Your task to perform on an android device: install app "ZOOM Cloud Meetings" Image 0: 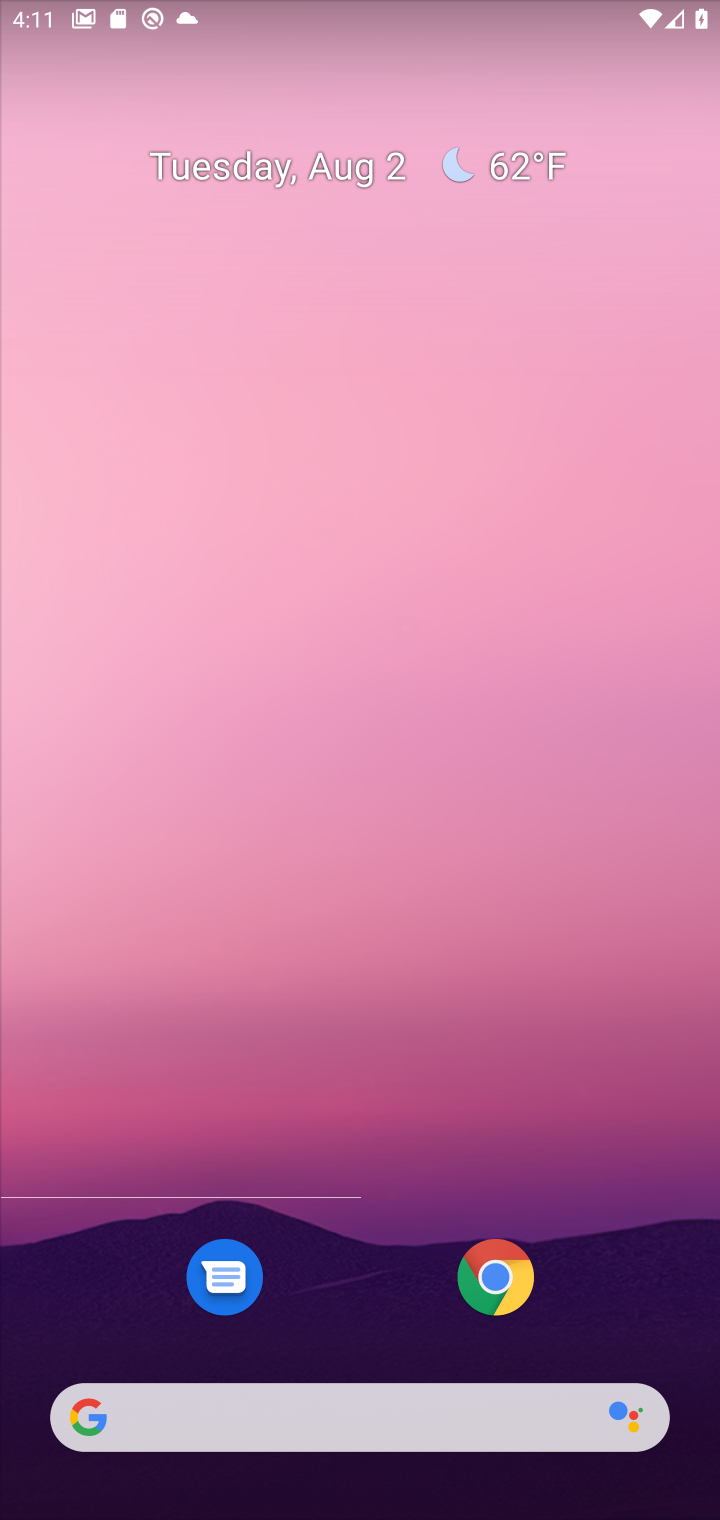
Step 0: press home button
Your task to perform on an android device: install app "ZOOM Cloud Meetings" Image 1: 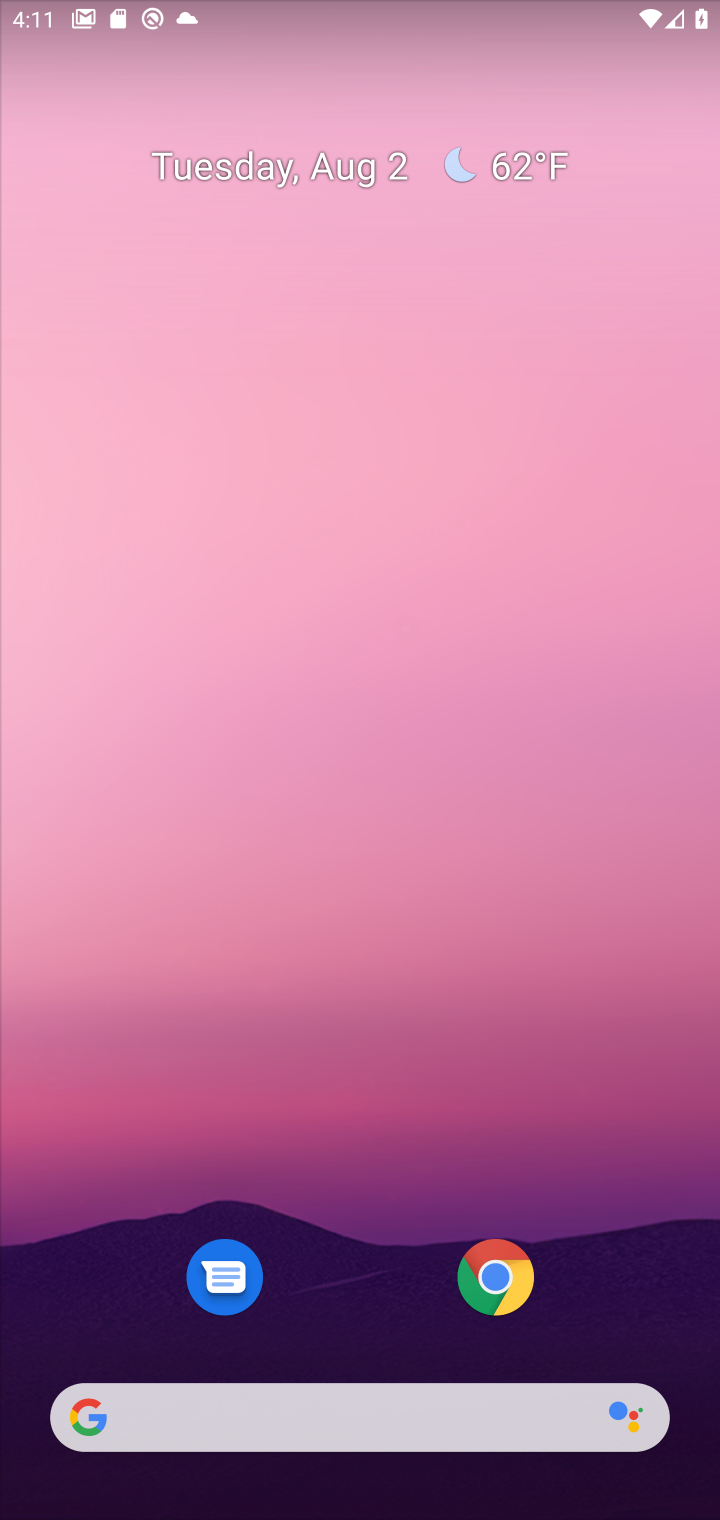
Step 1: drag from (375, 883) to (419, 209)
Your task to perform on an android device: install app "ZOOM Cloud Meetings" Image 2: 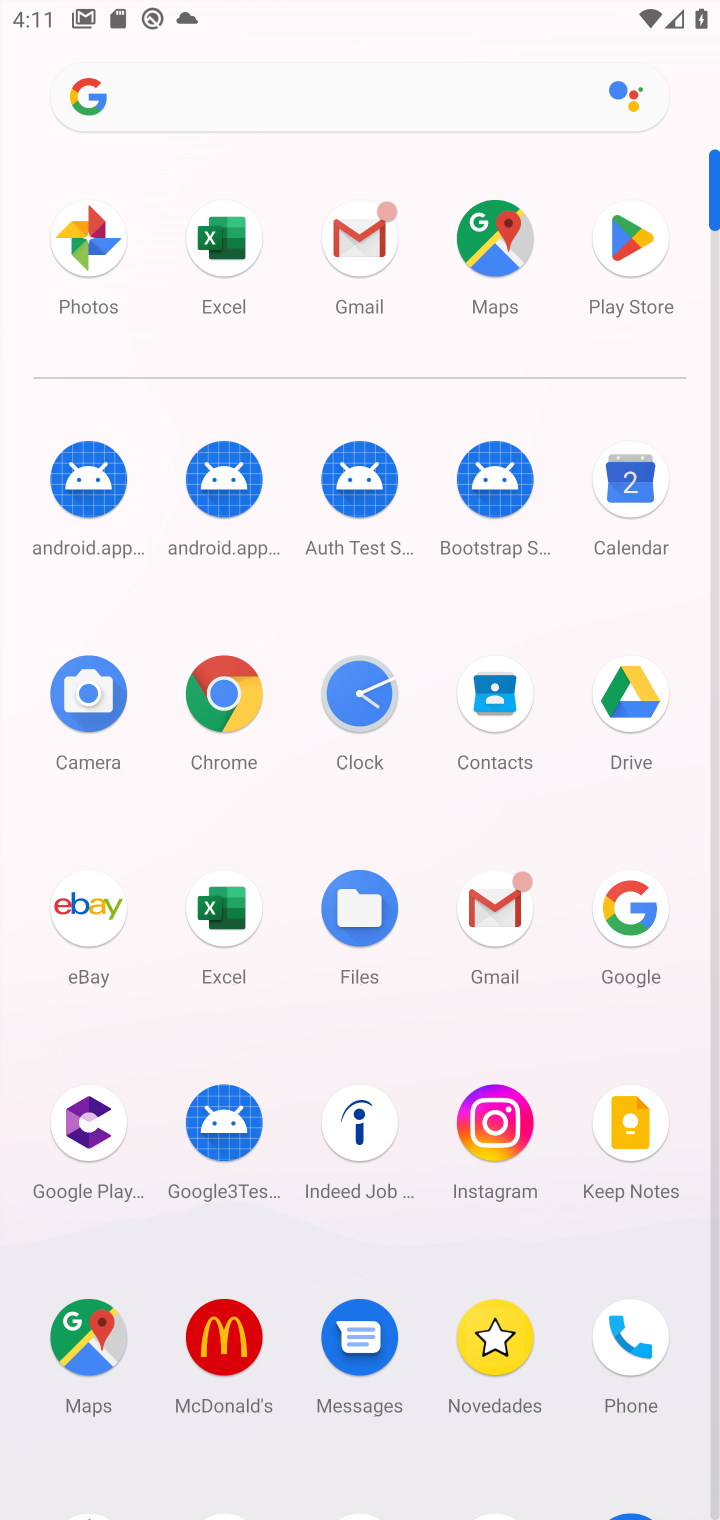
Step 2: drag from (560, 1004) to (573, 420)
Your task to perform on an android device: install app "ZOOM Cloud Meetings" Image 3: 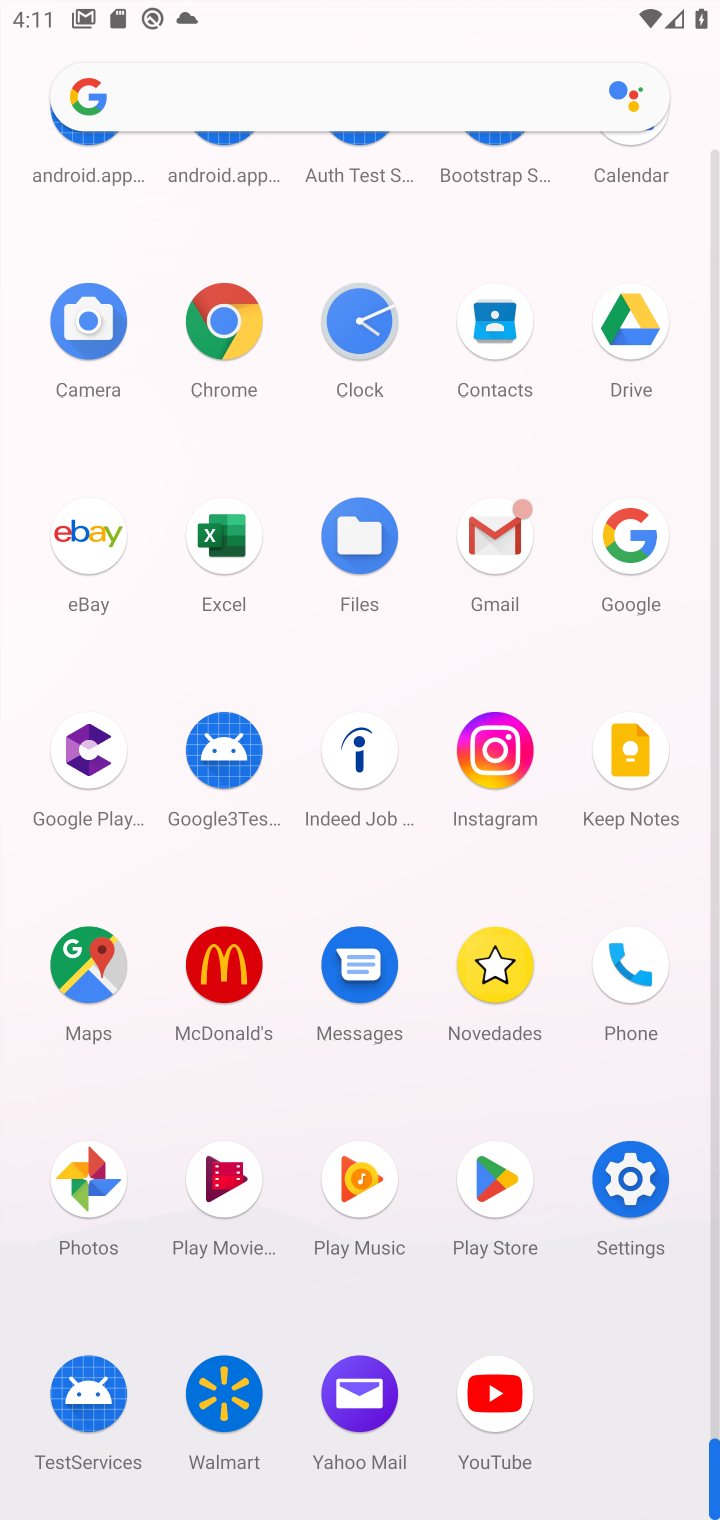
Step 3: click (496, 1192)
Your task to perform on an android device: install app "ZOOM Cloud Meetings" Image 4: 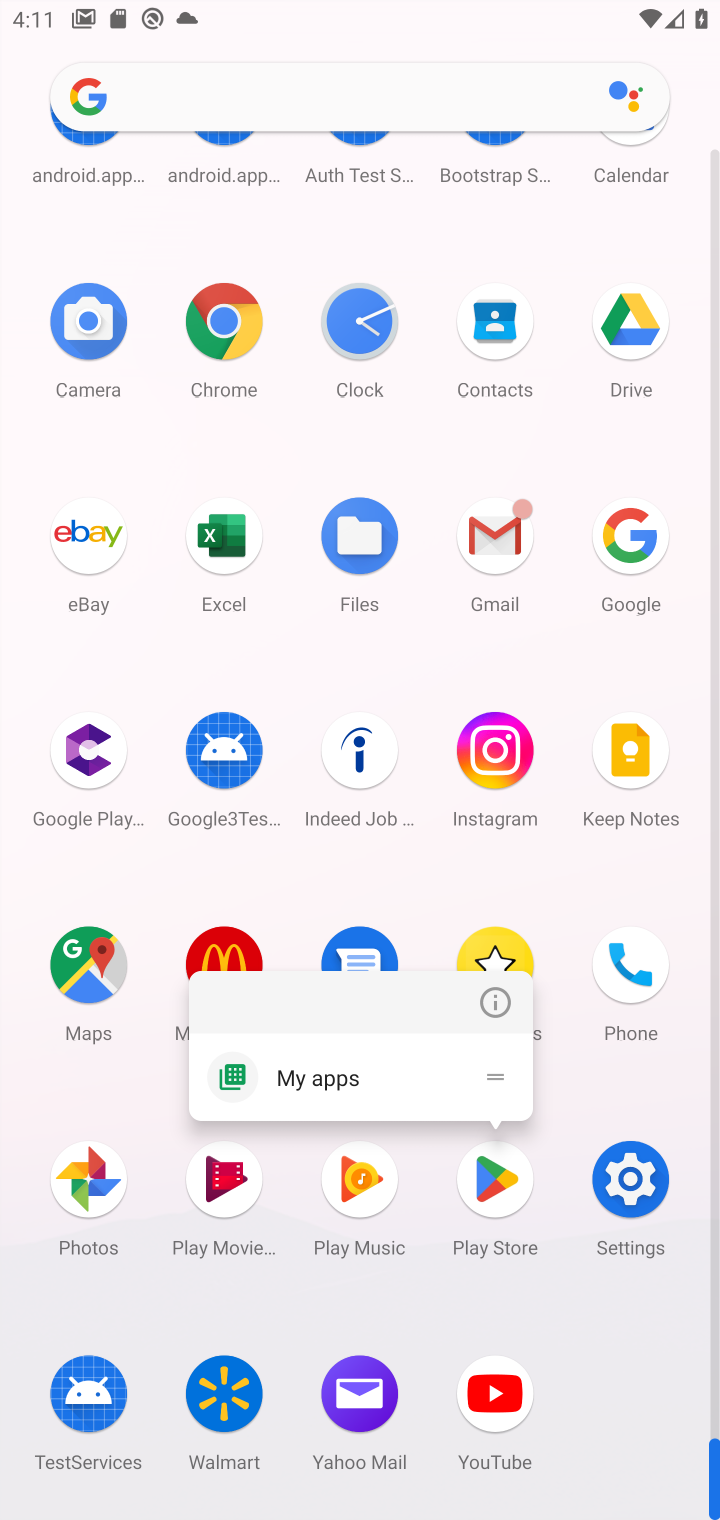
Step 4: click (483, 1176)
Your task to perform on an android device: install app "ZOOM Cloud Meetings" Image 5: 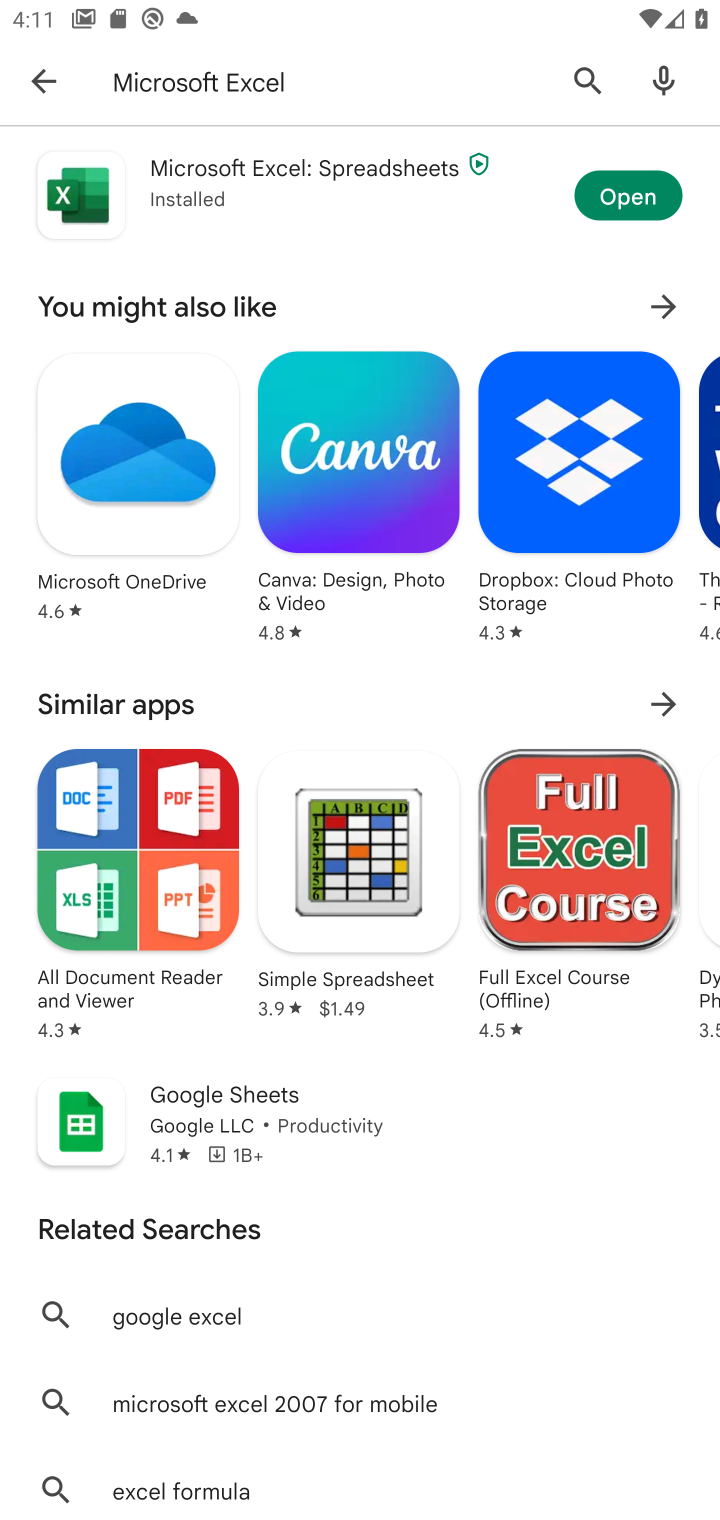
Step 5: click (403, 93)
Your task to perform on an android device: install app "ZOOM Cloud Meetings" Image 6: 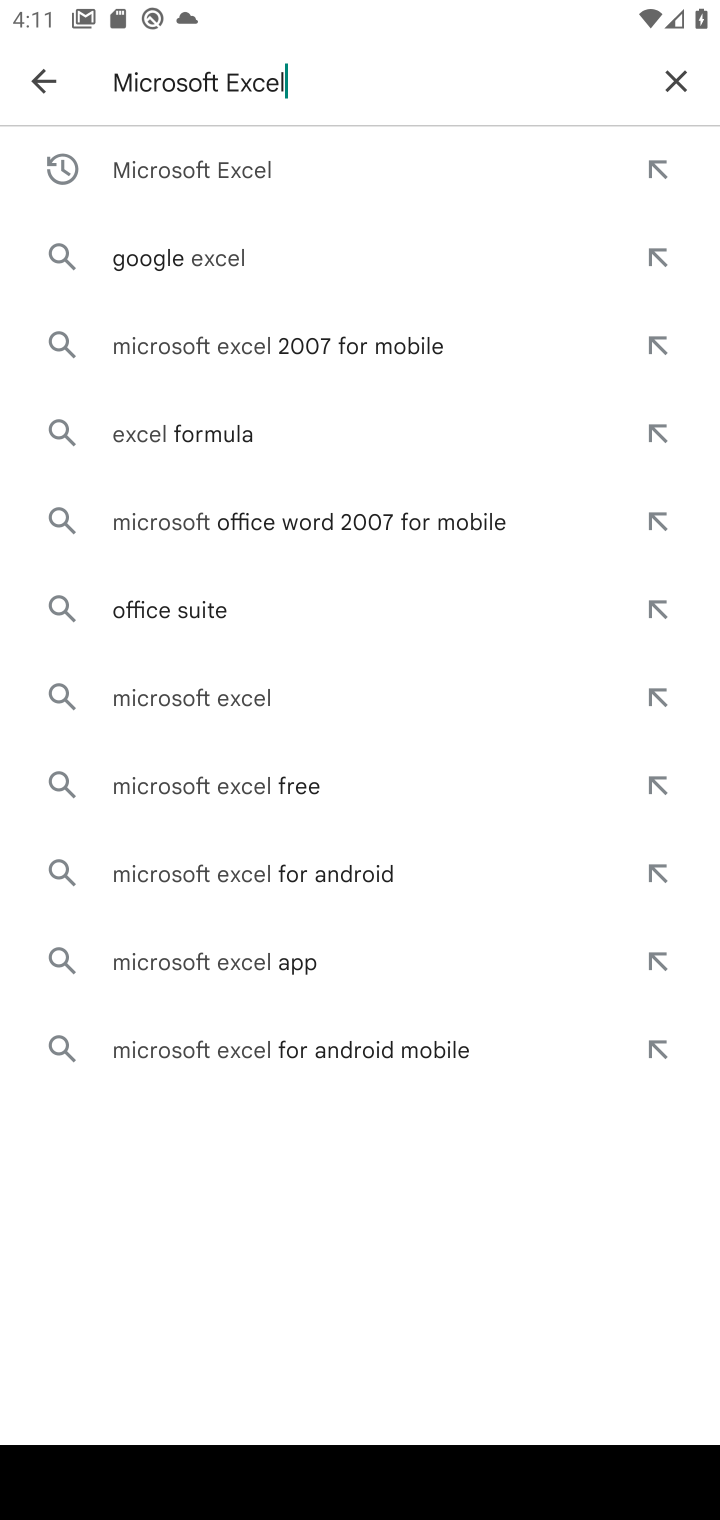
Step 6: click (669, 81)
Your task to perform on an android device: install app "ZOOM Cloud Meetings" Image 7: 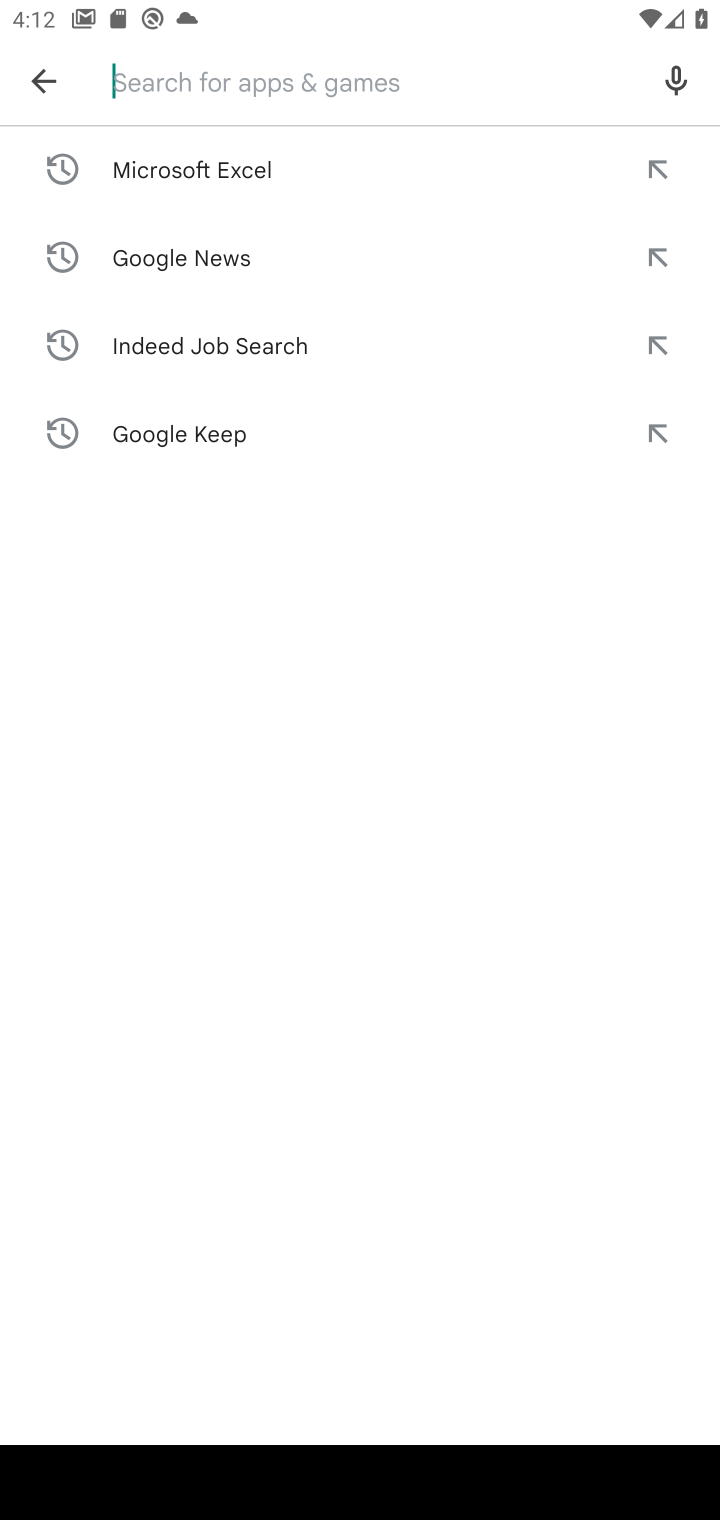
Step 7: type "ZOOM Cloud Meeting"
Your task to perform on an android device: install app "ZOOM Cloud Meetings" Image 8: 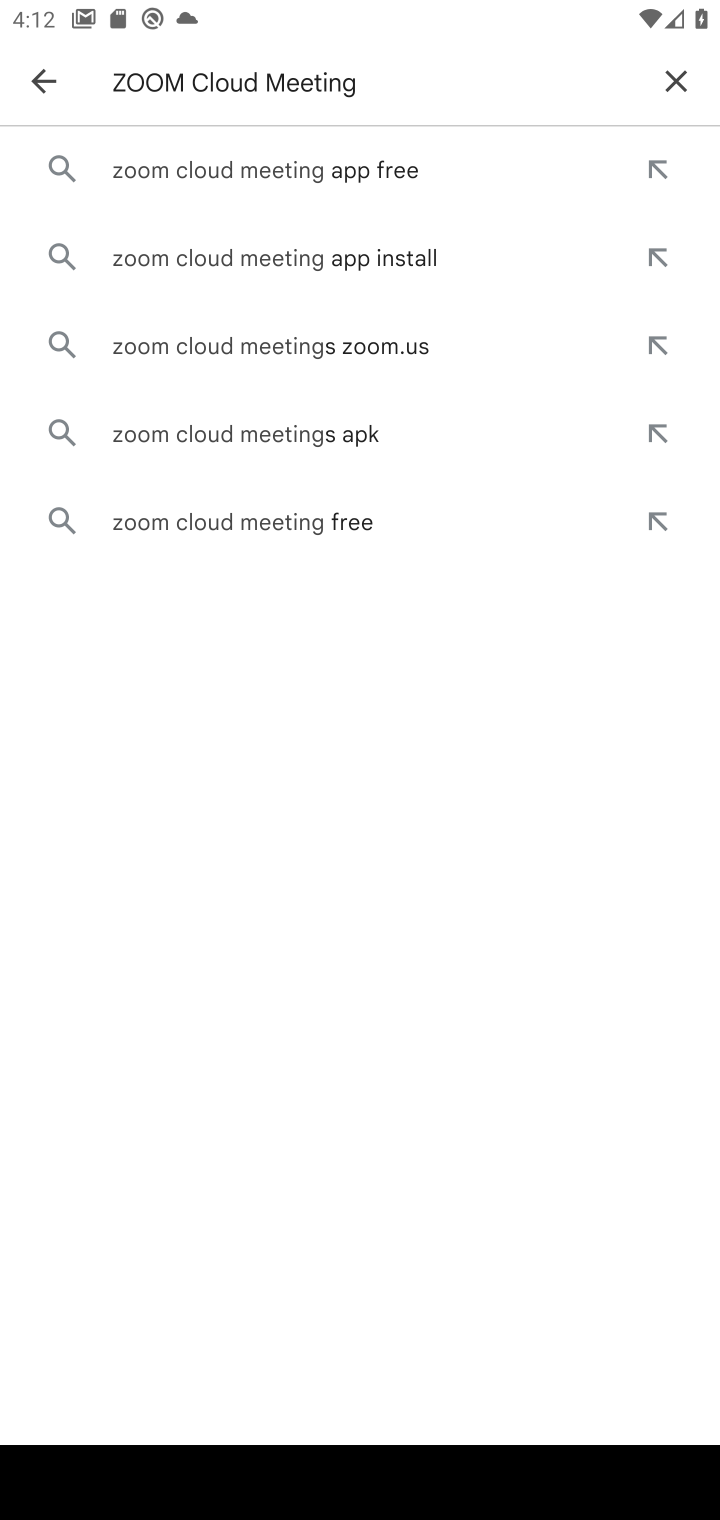
Step 8: press enter
Your task to perform on an android device: install app "ZOOM Cloud Meetings" Image 9: 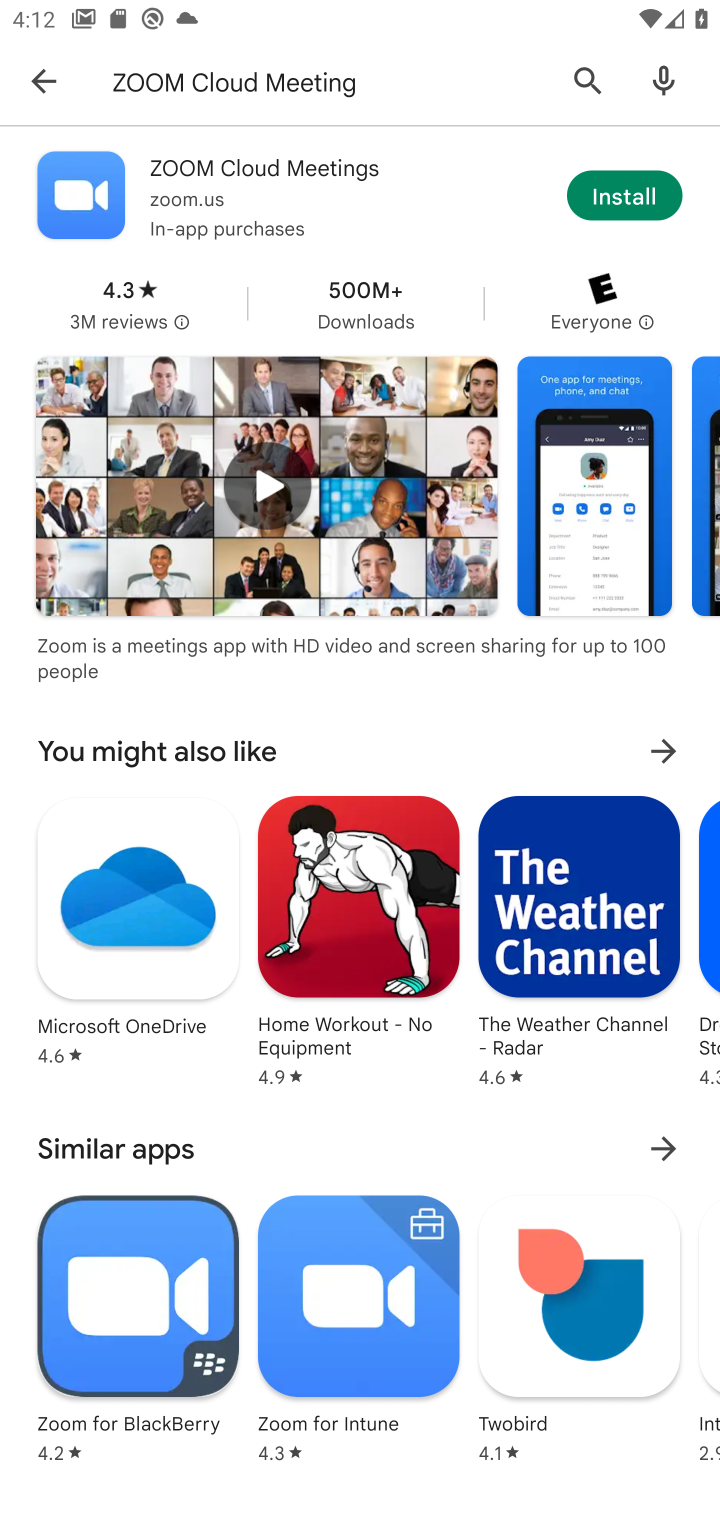
Step 9: click (651, 186)
Your task to perform on an android device: install app "ZOOM Cloud Meetings" Image 10: 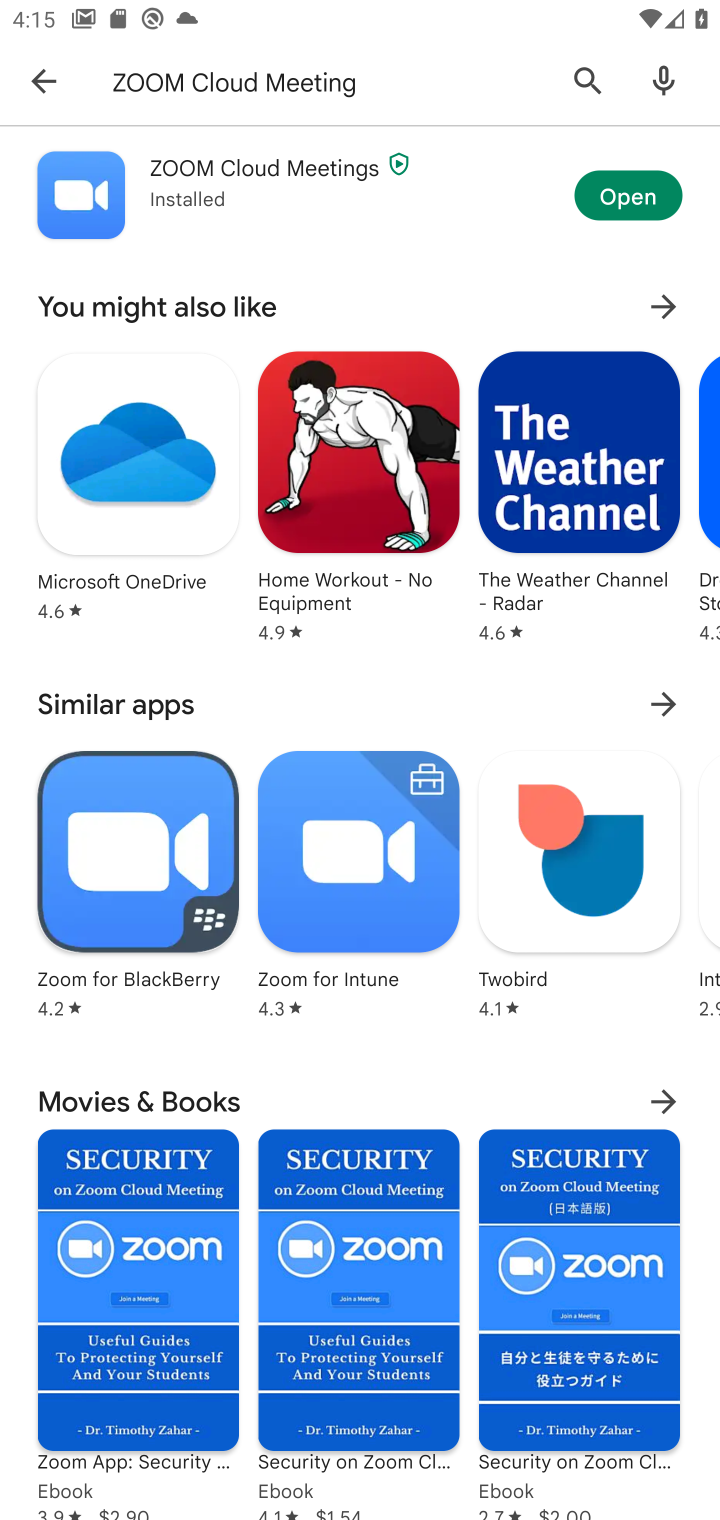
Step 10: task complete